Your task to perform on an android device: visit the assistant section in the google photos Image 0: 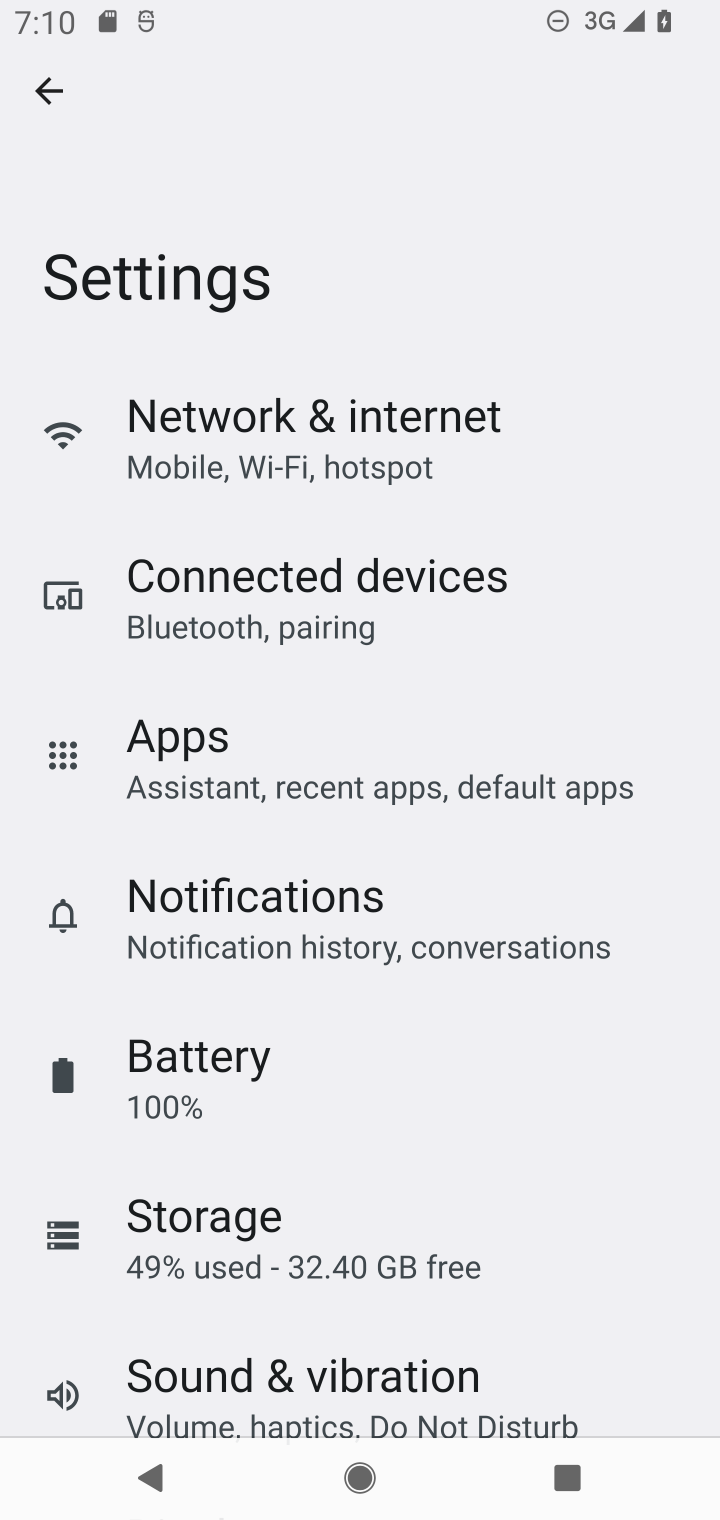
Step 0: press home button
Your task to perform on an android device: visit the assistant section in the google photos Image 1: 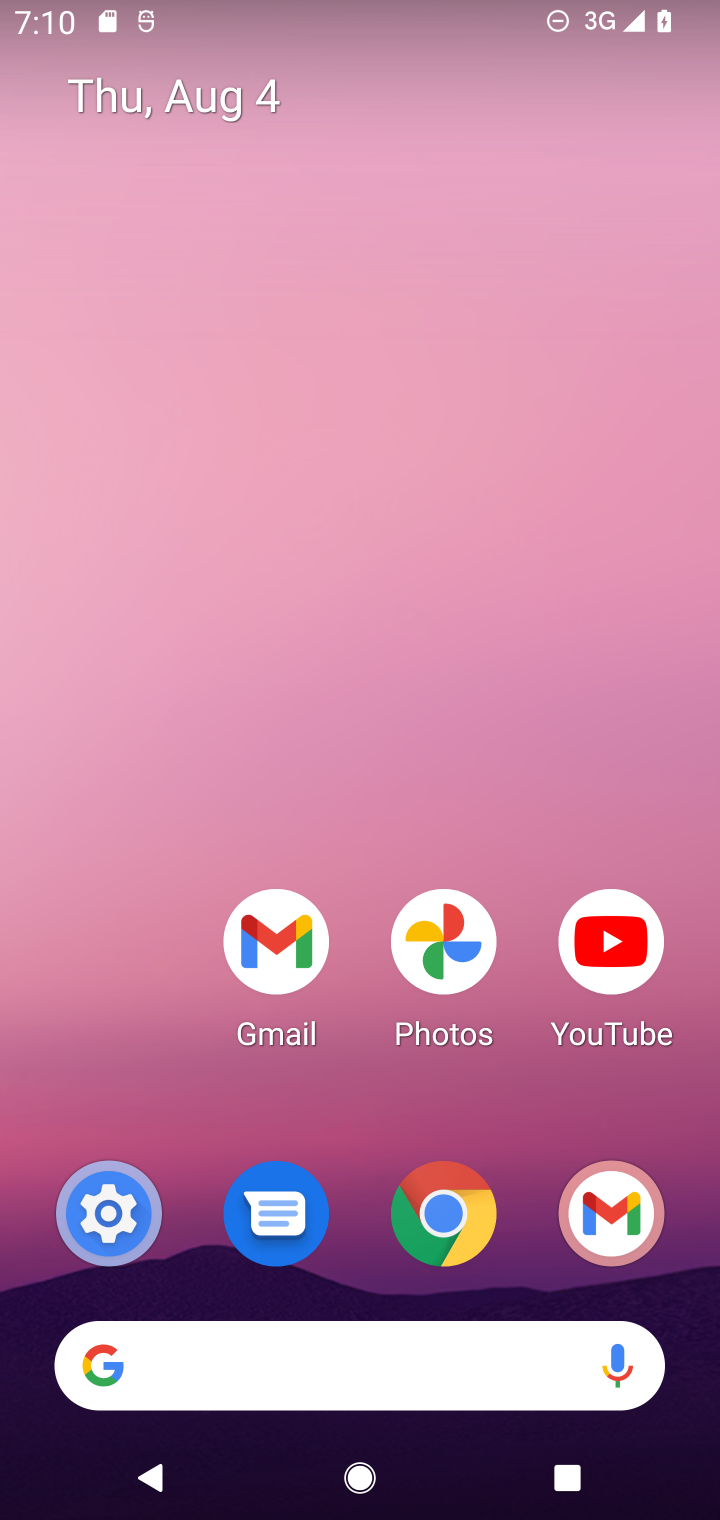
Step 1: drag from (171, 1114) to (168, 358)
Your task to perform on an android device: visit the assistant section in the google photos Image 2: 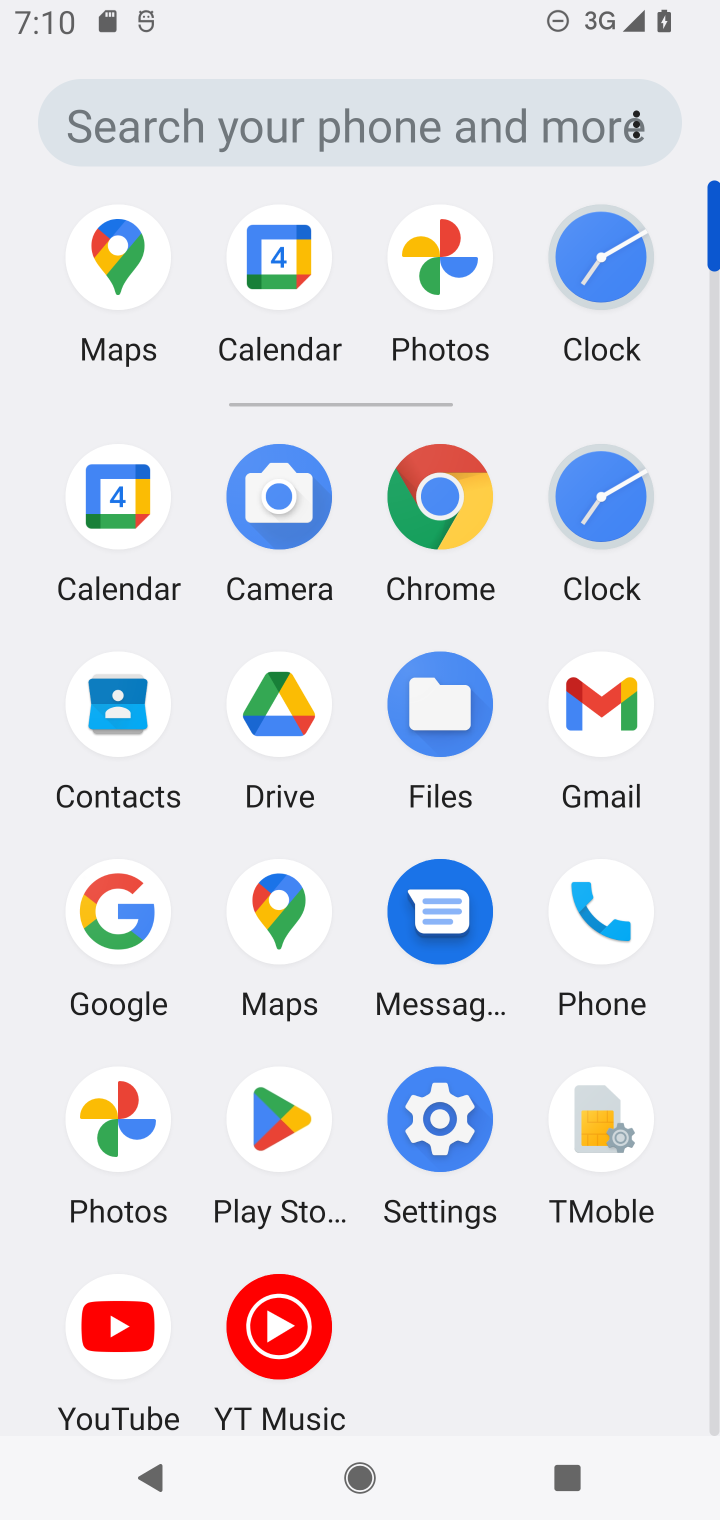
Step 2: click (104, 1139)
Your task to perform on an android device: visit the assistant section in the google photos Image 3: 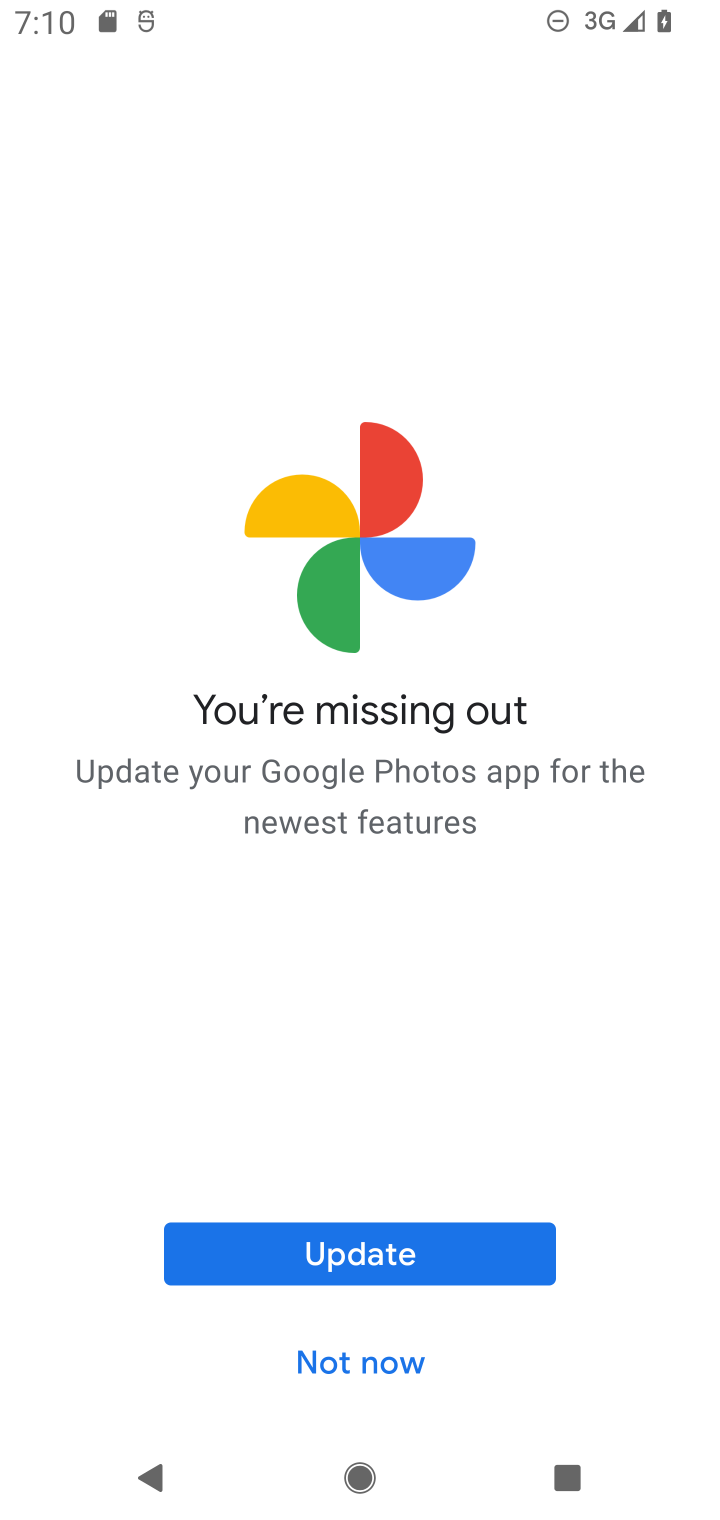
Step 3: click (391, 1371)
Your task to perform on an android device: visit the assistant section in the google photos Image 4: 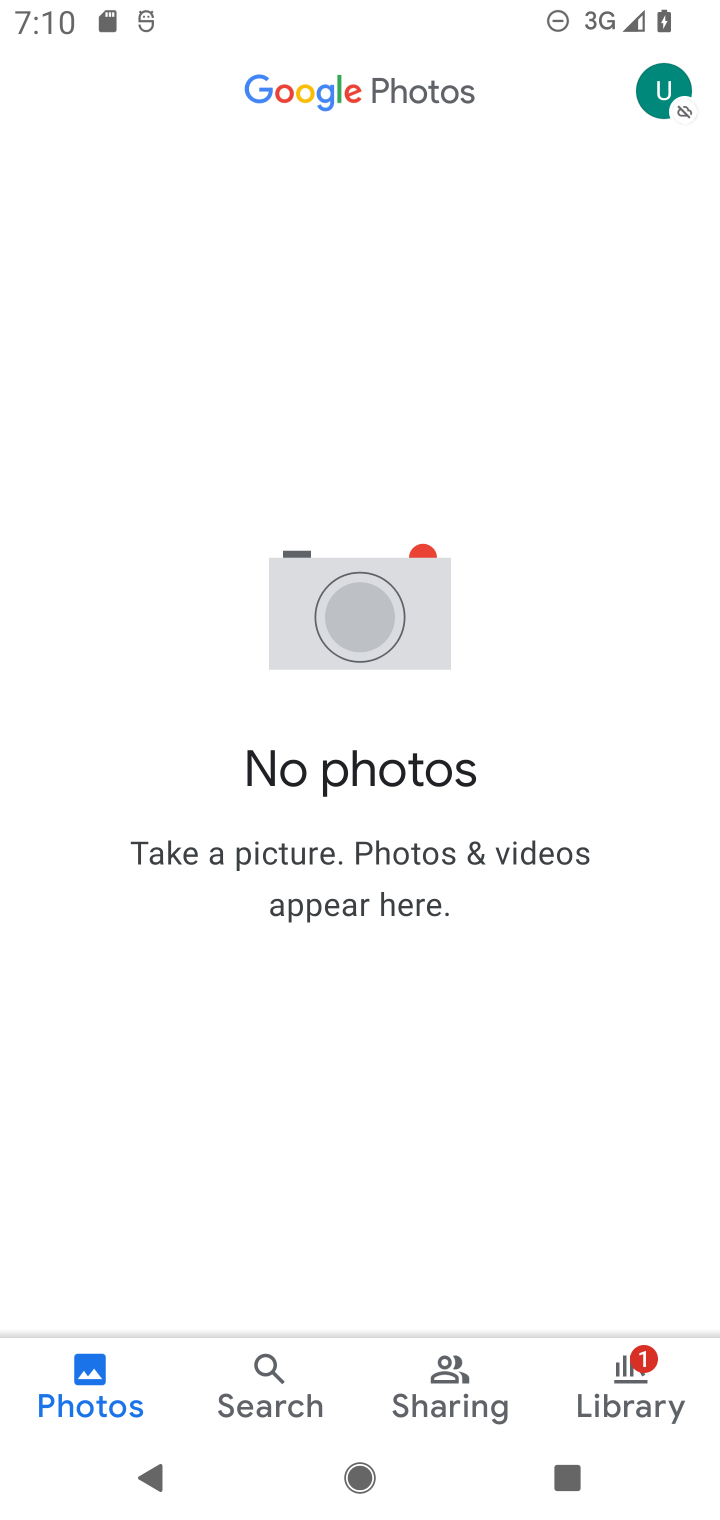
Step 4: click (644, 1387)
Your task to perform on an android device: visit the assistant section in the google photos Image 5: 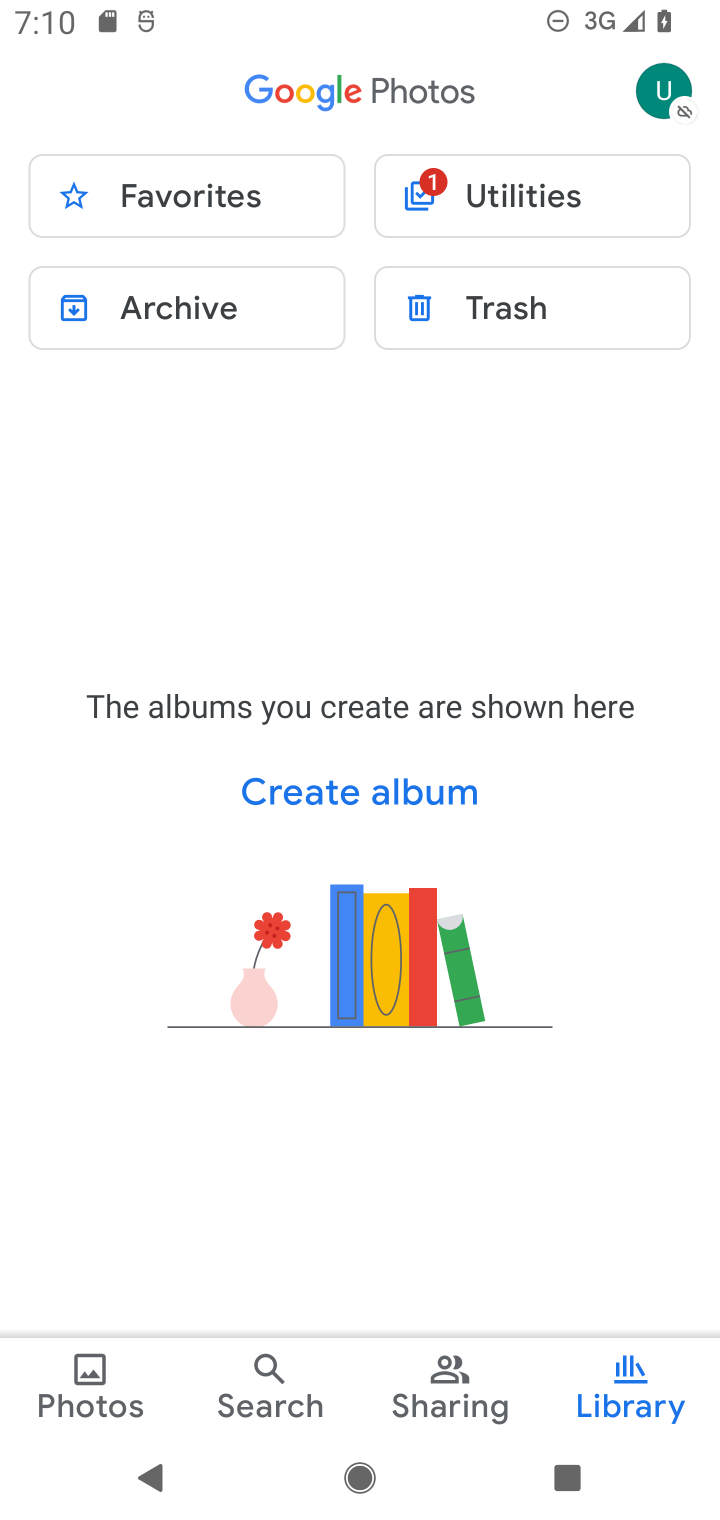
Step 5: task complete